Your task to perform on an android device: change the upload size in google photos Image 0: 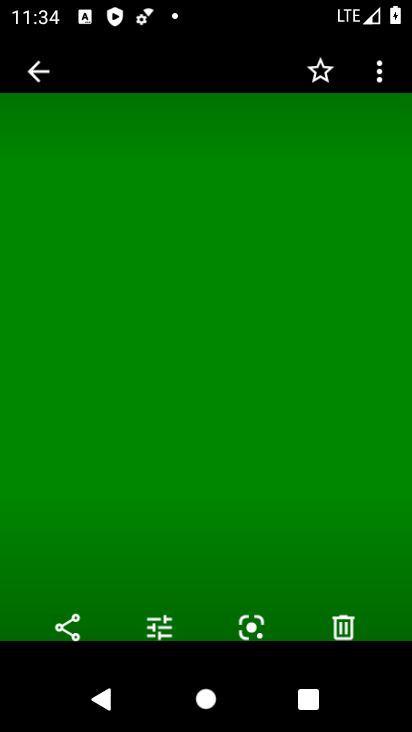
Step 0: press home button
Your task to perform on an android device: change the upload size in google photos Image 1: 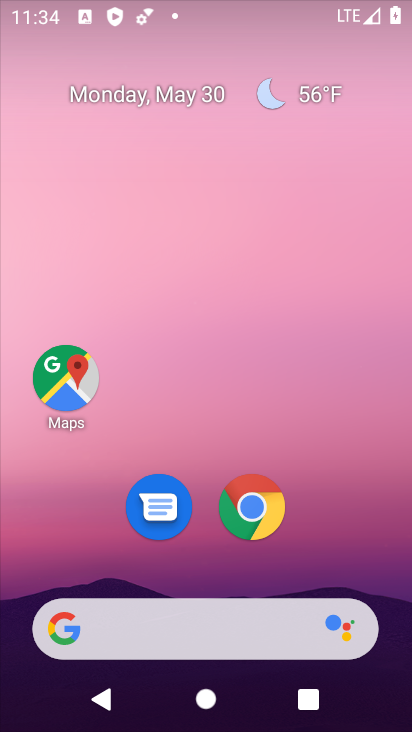
Step 1: drag from (392, 637) to (309, 41)
Your task to perform on an android device: change the upload size in google photos Image 2: 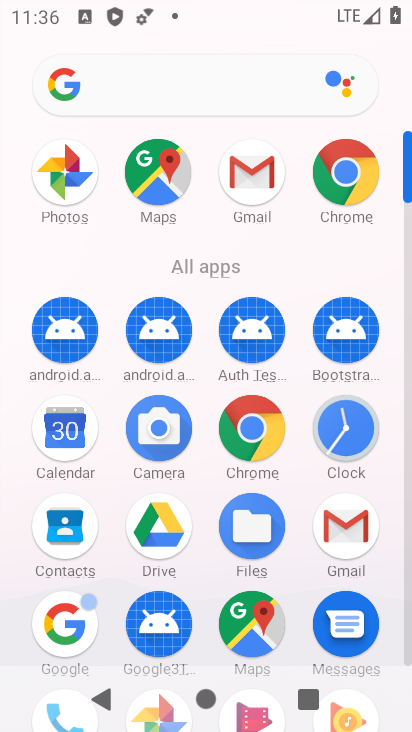
Step 2: drag from (201, 673) to (177, 113)
Your task to perform on an android device: change the upload size in google photos Image 3: 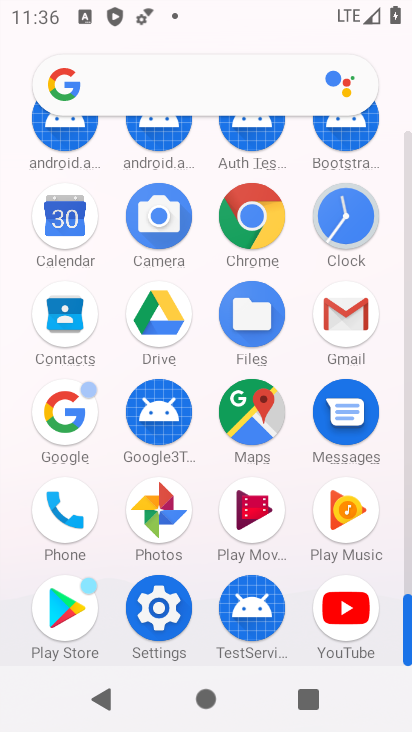
Step 3: click (177, 514)
Your task to perform on an android device: change the upload size in google photos Image 4: 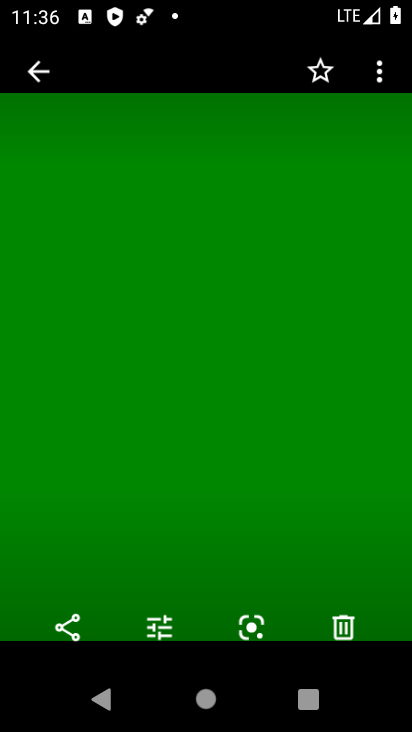
Step 4: press back button
Your task to perform on an android device: change the upload size in google photos Image 5: 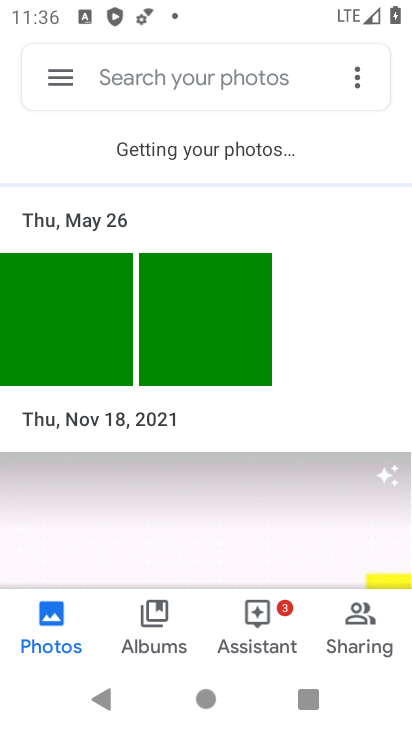
Step 5: click (74, 90)
Your task to perform on an android device: change the upload size in google photos Image 6: 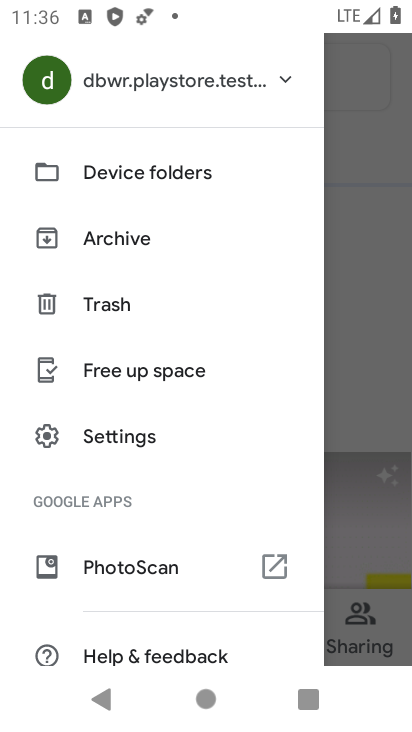
Step 6: click (130, 434)
Your task to perform on an android device: change the upload size in google photos Image 7: 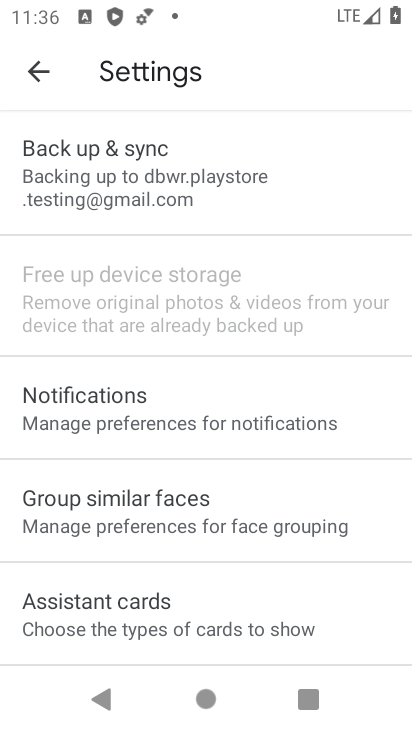
Step 7: click (156, 203)
Your task to perform on an android device: change the upload size in google photos Image 8: 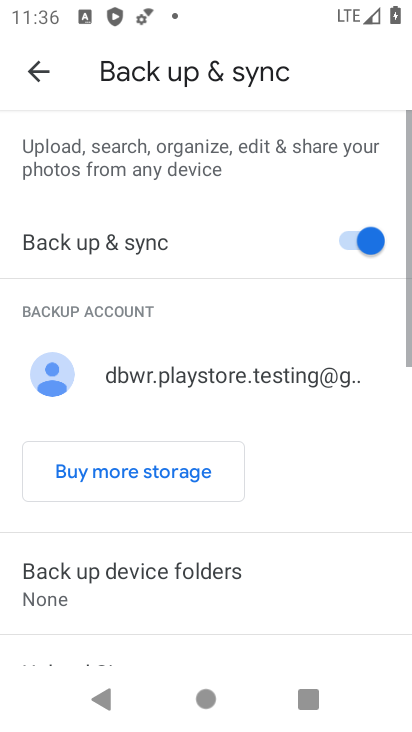
Step 8: drag from (184, 599) to (222, 142)
Your task to perform on an android device: change the upload size in google photos Image 9: 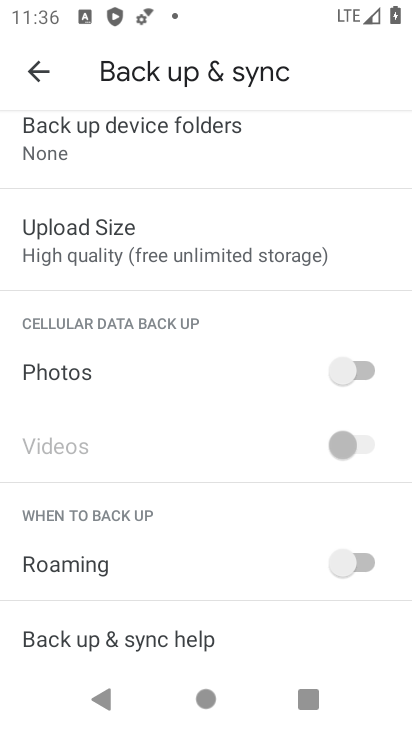
Step 9: click (134, 240)
Your task to perform on an android device: change the upload size in google photos Image 10: 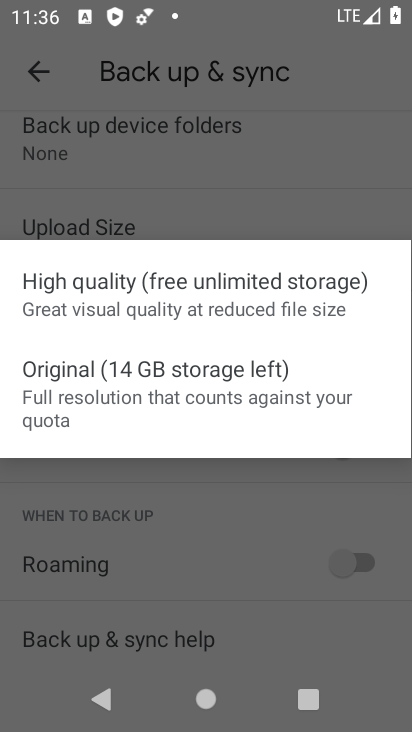
Step 10: click (120, 397)
Your task to perform on an android device: change the upload size in google photos Image 11: 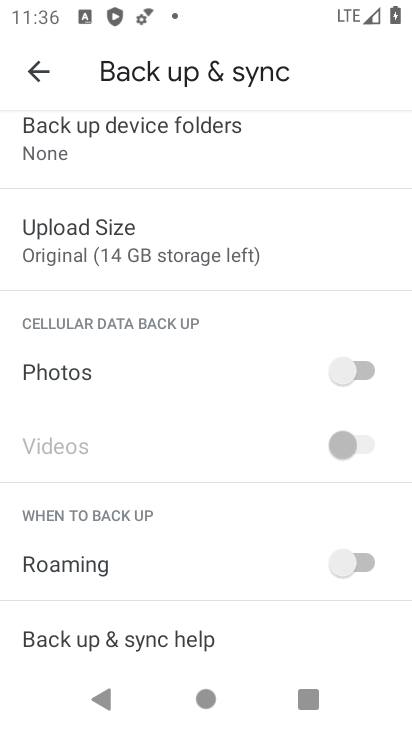
Step 11: task complete